Your task to perform on an android device: Search for flights from NYC to Barcelona Image 0: 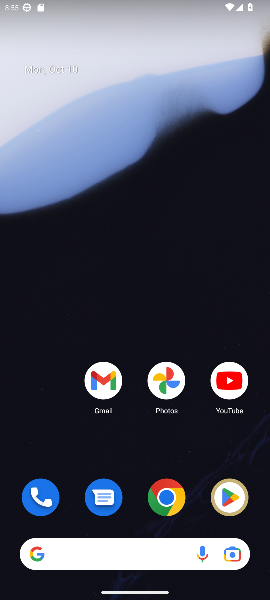
Step 0: drag from (116, 303) to (132, 184)
Your task to perform on an android device: Search for flights from NYC to Barcelona Image 1: 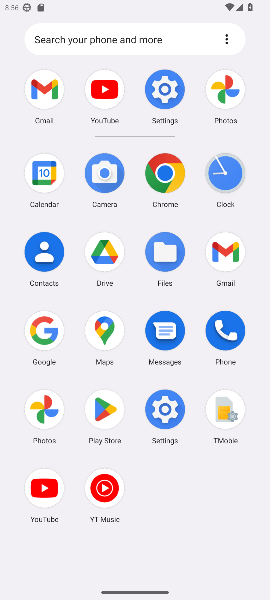
Step 1: click (227, 251)
Your task to perform on an android device: Search for flights from NYC to Barcelona Image 2: 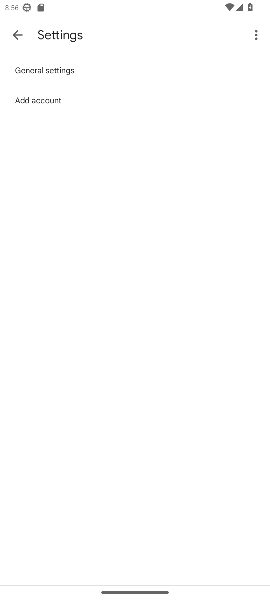
Step 2: click (22, 37)
Your task to perform on an android device: Search for flights from NYC to Barcelona Image 3: 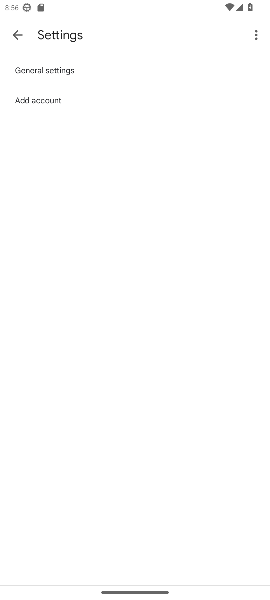
Step 3: click (18, 31)
Your task to perform on an android device: Search for flights from NYC to Barcelona Image 4: 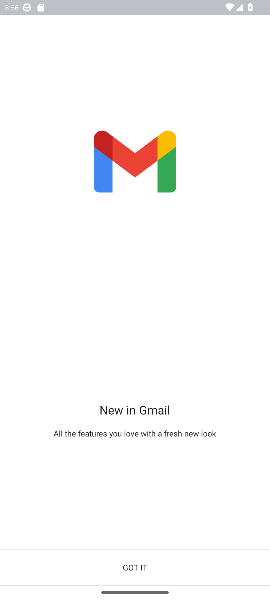
Step 4: press home button
Your task to perform on an android device: Search for flights from NYC to Barcelona Image 5: 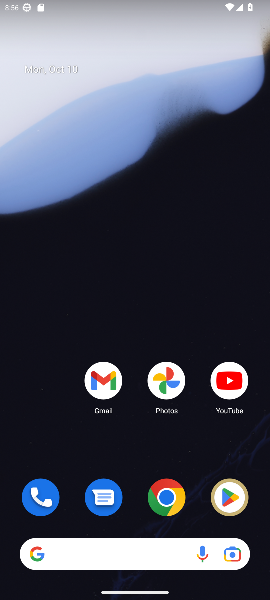
Step 5: drag from (131, 479) to (149, 299)
Your task to perform on an android device: Search for flights from NYC to Barcelona Image 6: 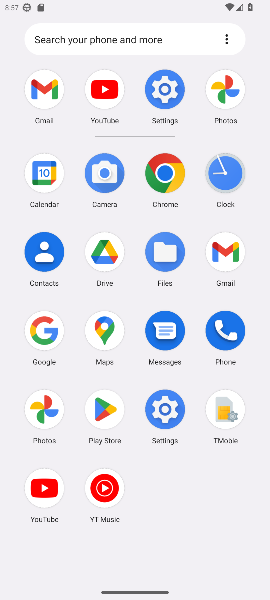
Step 6: click (38, 322)
Your task to perform on an android device: Search for flights from NYC to Barcelona Image 7: 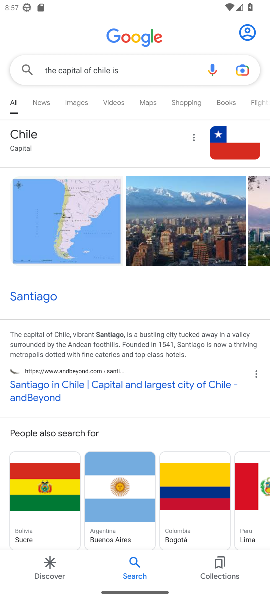
Step 7: click (130, 69)
Your task to perform on an android device: Search for flights from NYC to Barcelona Image 8: 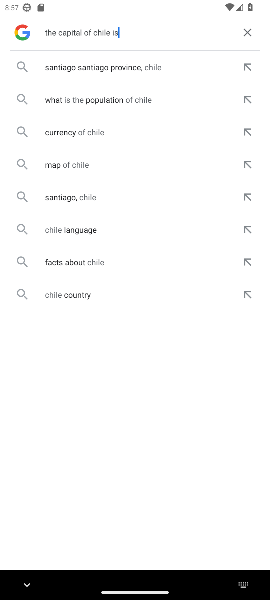
Step 8: click (242, 30)
Your task to perform on an android device: Search for flights from NYC to Barcelona Image 9: 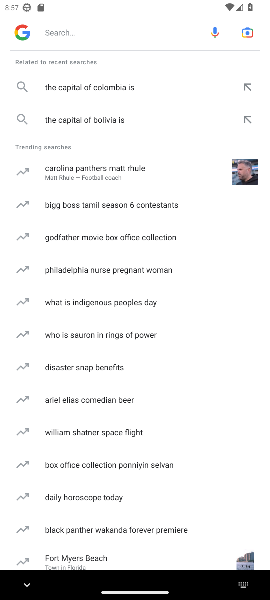
Step 9: click (112, 39)
Your task to perform on an android device: Search for flights from NYC to Barcelona Image 10: 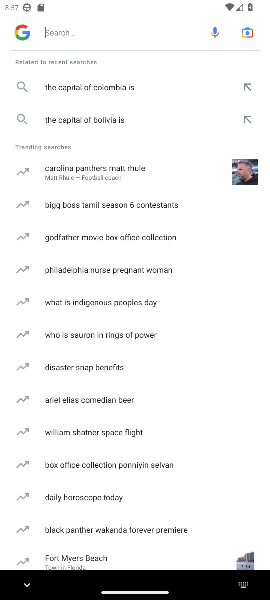
Step 10: type "flights from NYC to Barcelona "
Your task to perform on an android device: Search for flights from NYC to Barcelona Image 11: 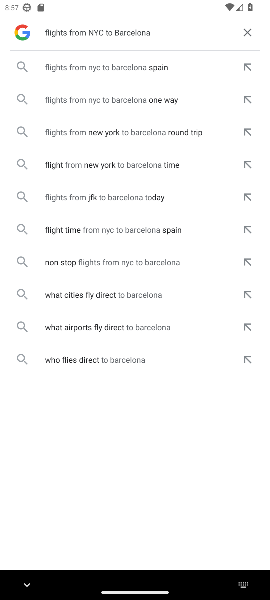
Step 11: click (118, 73)
Your task to perform on an android device: Search for flights from NYC to Barcelona Image 12: 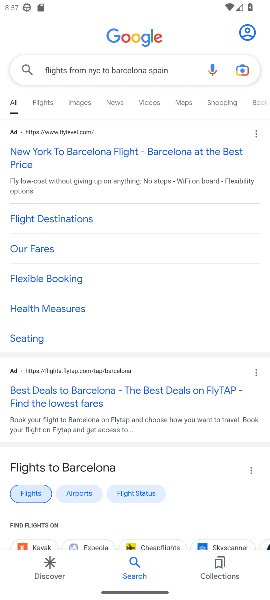
Step 12: click (125, 152)
Your task to perform on an android device: Search for flights from NYC to Barcelona Image 13: 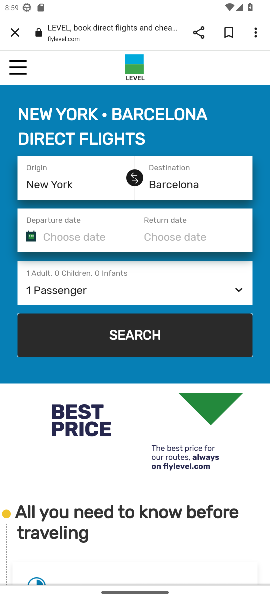
Step 13: task complete